Your task to perform on an android device: Go to calendar. Show me events next week Image 0: 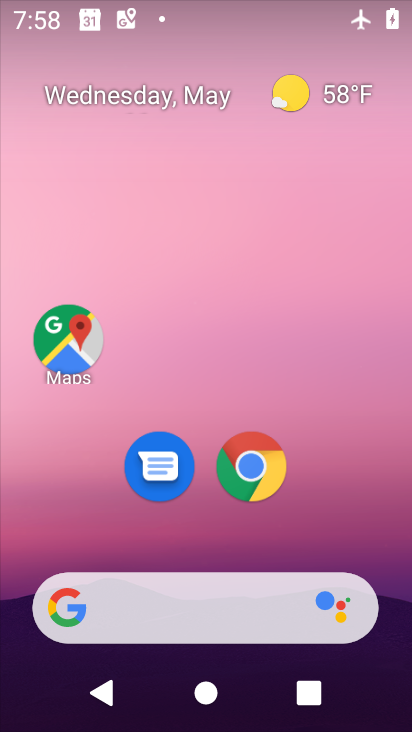
Step 0: press home button
Your task to perform on an android device: Go to calendar. Show me events next week Image 1: 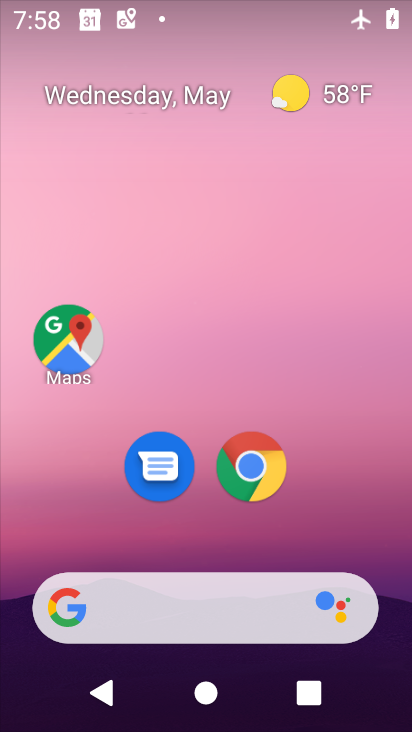
Step 1: drag from (206, 541) to (257, 61)
Your task to perform on an android device: Go to calendar. Show me events next week Image 2: 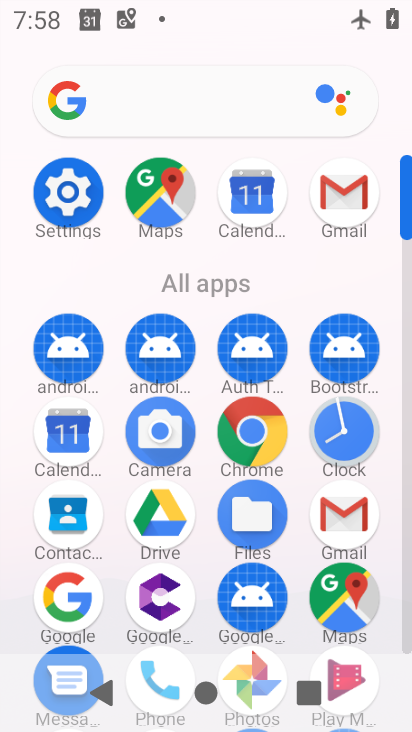
Step 2: click (69, 432)
Your task to perform on an android device: Go to calendar. Show me events next week Image 3: 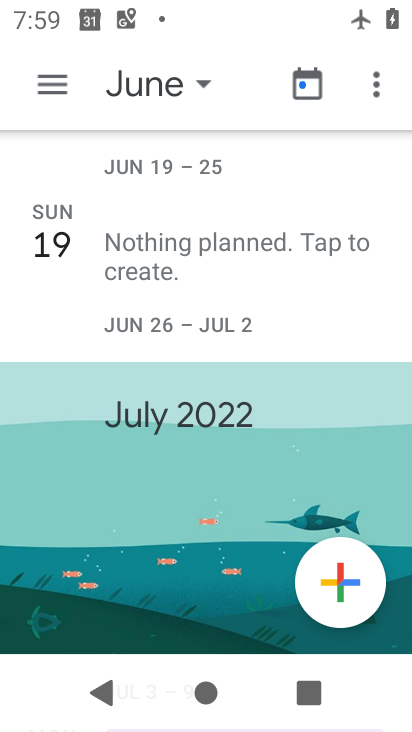
Step 3: click (47, 89)
Your task to perform on an android device: Go to calendar. Show me events next week Image 4: 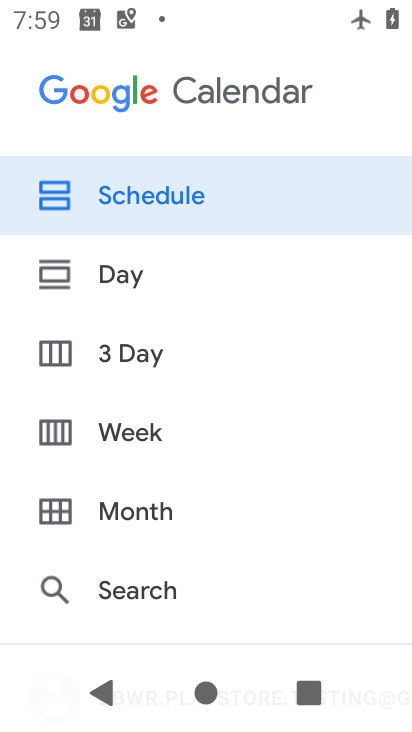
Step 4: click (147, 437)
Your task to perform on an android device: Go to calendar. Show me events next week Image 5: 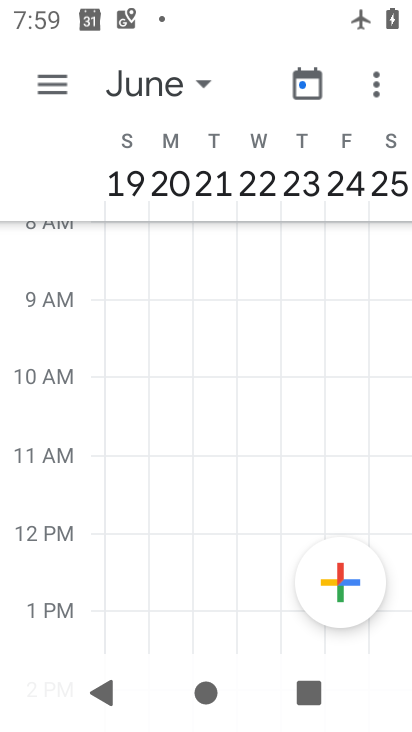
Step 5: drag from (128, 179) to (404, 178)
Your task to perform on an android device: Go to calendar. Show me events next week Image 6: 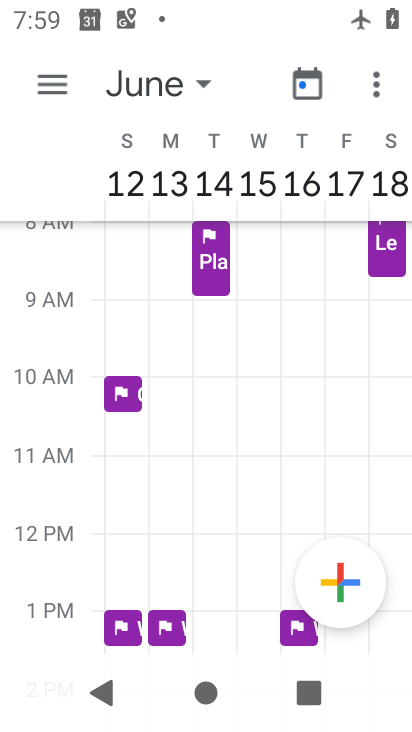
Step 6: drag from (126, 183) to (407, 201)
Your task to perform on an android device: Go to calendar. Show me events next week Image 7: 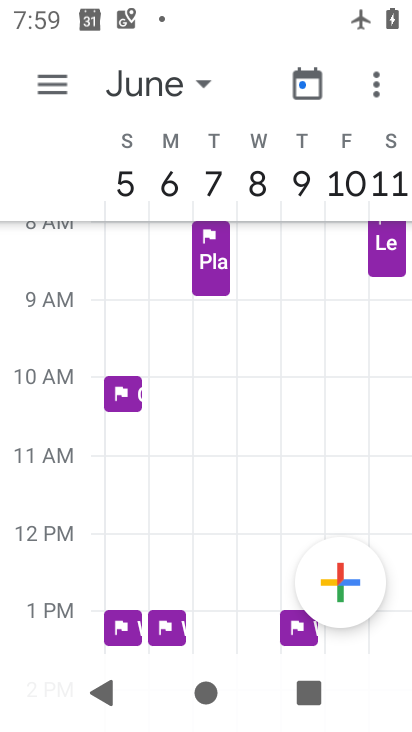
Step 7: drag from (115, 183) to (408, 191)
Your task to perform on an android device: Go to calendar. Show me events next week Image 8: 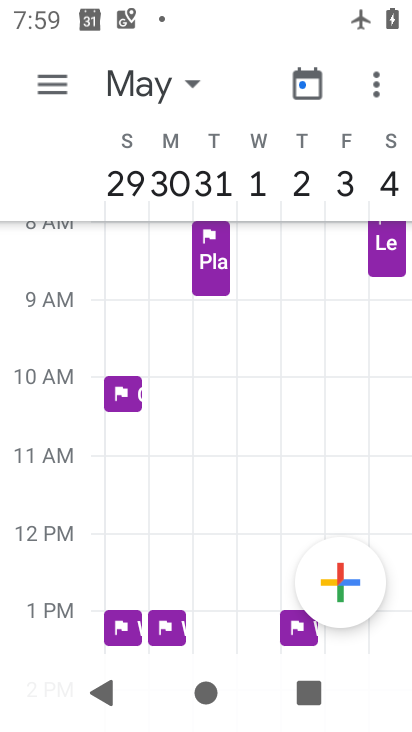
Step 8: drag from (162, 189) to (410, 213)
Your task to perform on an android device: Go to calendar. Show me events next week Image 9: 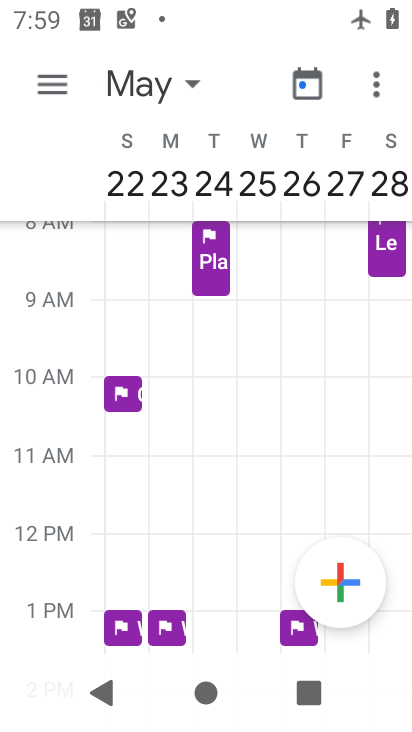
Step 9: drag from (117, 179) to (409, 222)
Your task to perform on an android device: Go to calendar. Show me events next week Image 10: 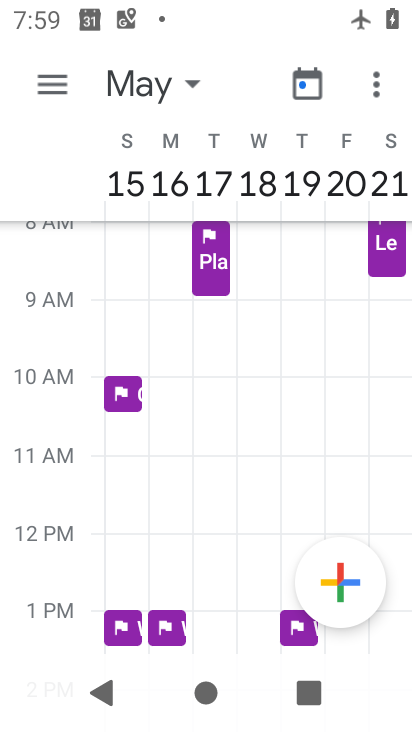
Step 10: click (126, 184)
Your task to perform on an android device: Go to calendar. Show me events next week Image 11: 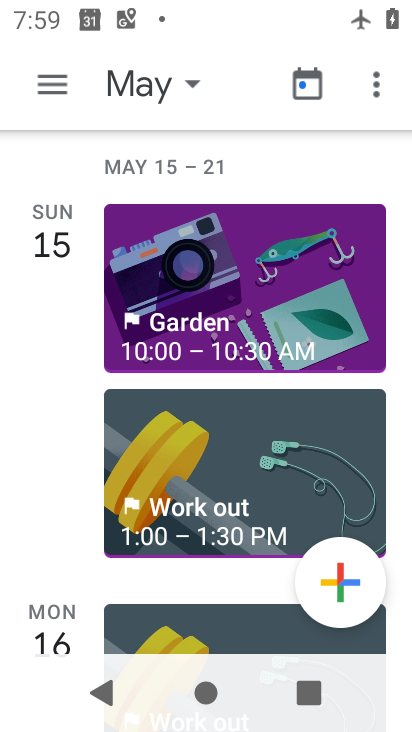
Step 11: task complete